Your task to perform on an android device: Go to location settings Image 0: 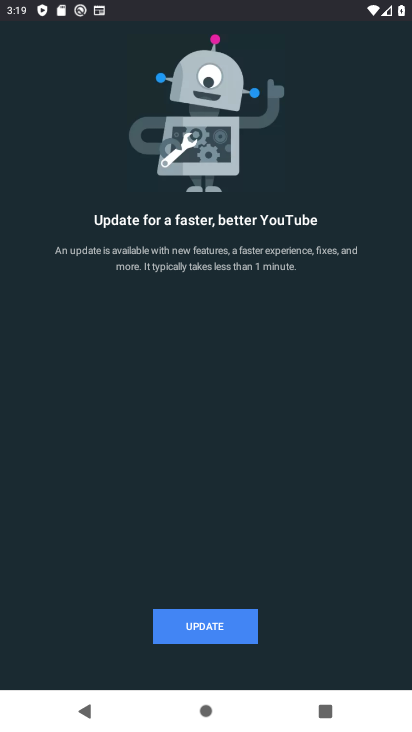
Step 0: press home button
Your task to perform on an android device: Go to location settings Image 1: 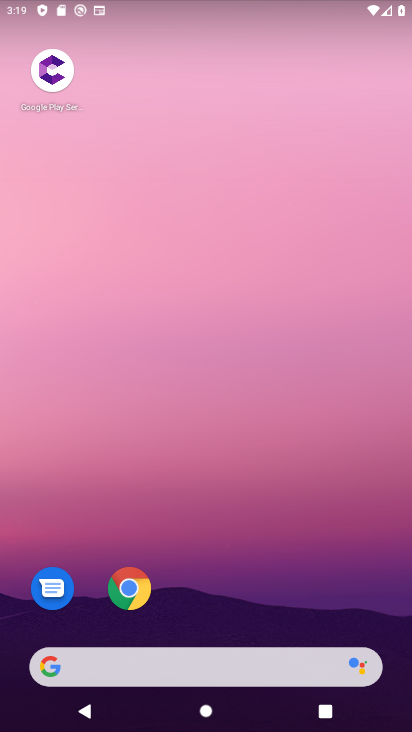
Step 1: drag from (322, 557) to (331, 1)
Your task to perform on an android device: Go to location settings Image 2: 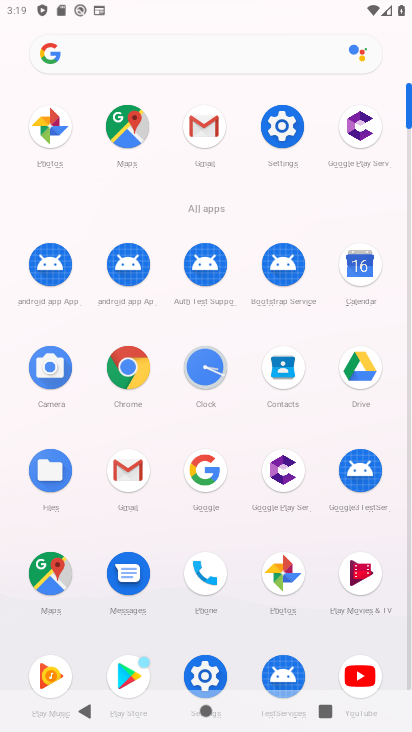
Step 2: click (276, 123)
Your task to perform on an android device: Go to location settings Image 3: 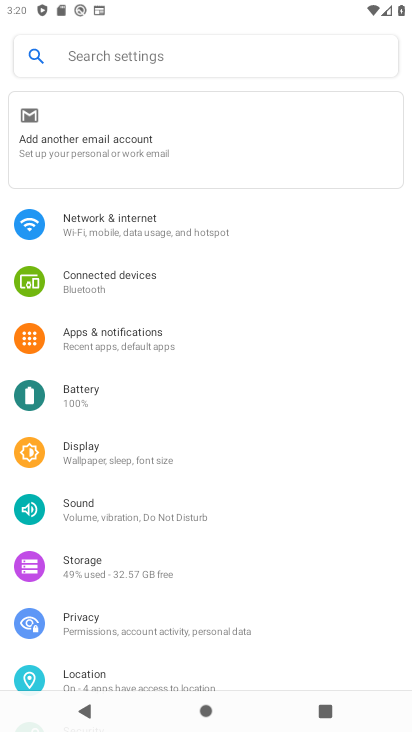
Step 3: drag from (205, 543) to (241, 241)
Your task to perform on an android device: Go to location settings Image 4: 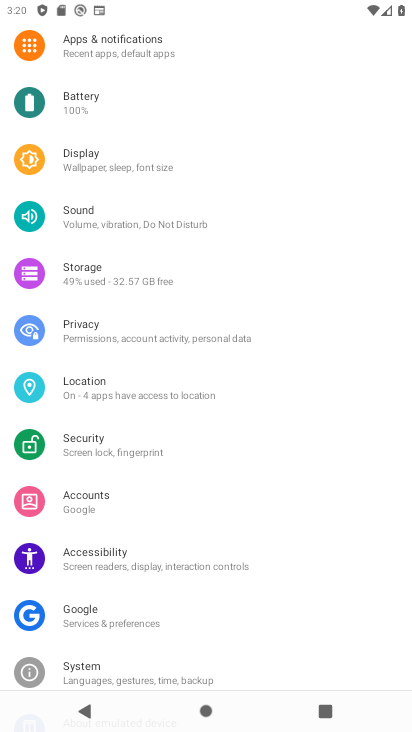
Step 4: click (77, 386)
Your task to perform on an android device: Go to location settings Image 5: 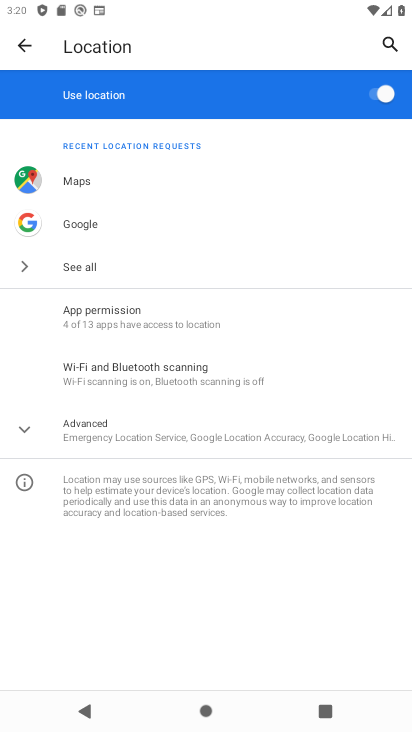
Step 5: task complete